Your task to perform on an android device: change the upload size in google photos Image 0: 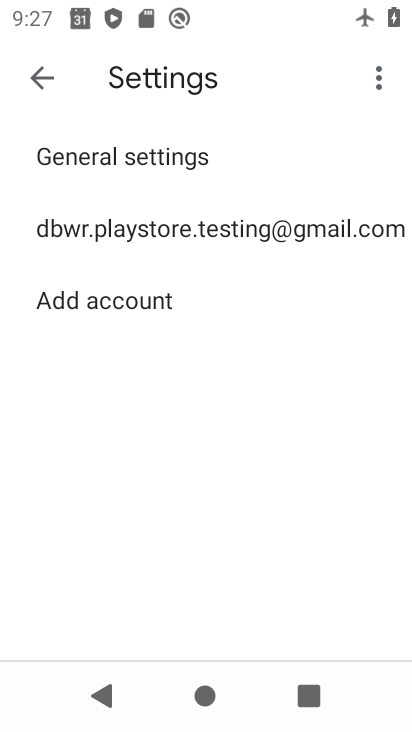
Step 0: click (263, 358)
Your task to perform on an android device: change the upload size in google photos Image 1: 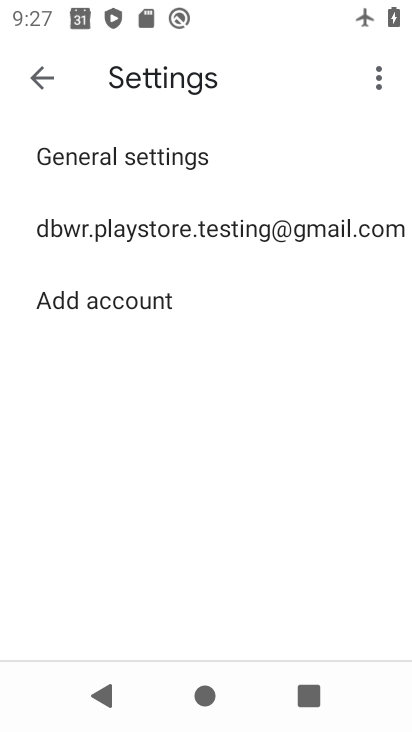
Step 1: press home button
Your task to perform on an android device: change the upload size in google photos Image 2: 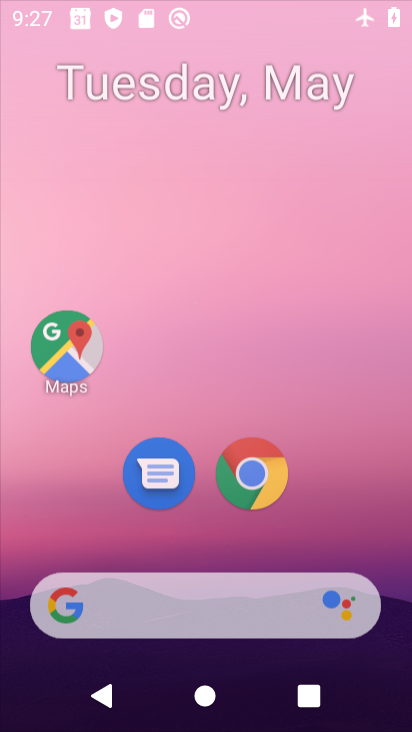
Step 2: drag from (260, 536) to (338, 10)
Your task to perform on an android device: change the upload size in google photos Image 3: 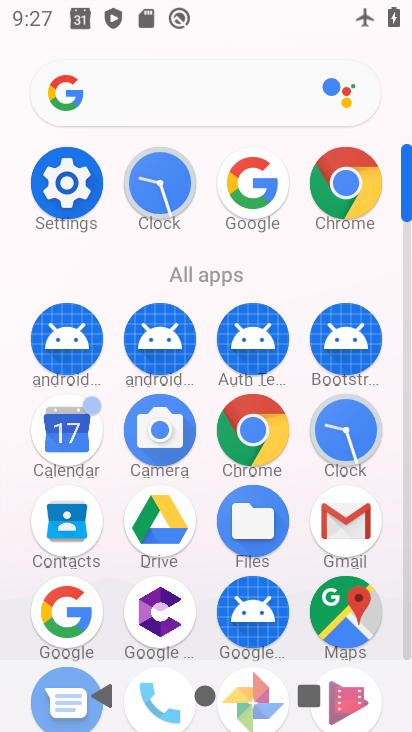
Step 3: drag from (208, 651) to (233, 249)
Your task to perform on an android device: change the upload size in google photos Image 4: 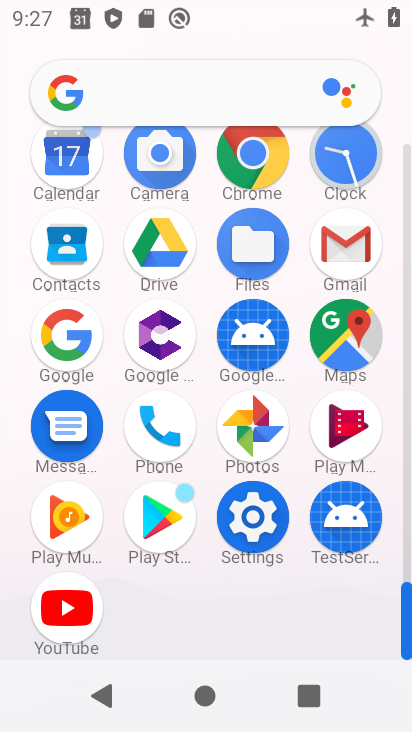
Step 4: click (257, 421)
Your task to perform on an android device: change the upload size in google photos Image 5: 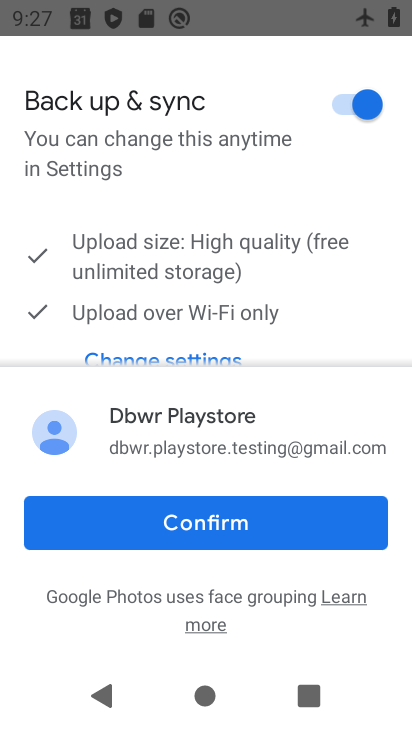
Step 5: click (258, 521)
Your task to perform on an android device: change the upload size in google photos Image 6: 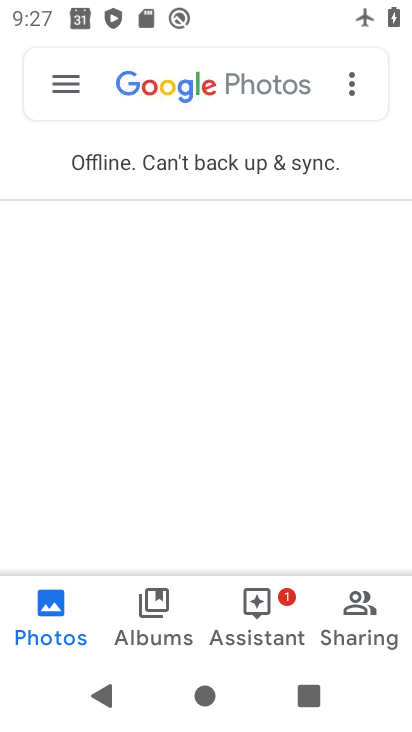
Step 6: click (352, 628)
Your task to perform on an android device: change the upload size in google photos Image 7: 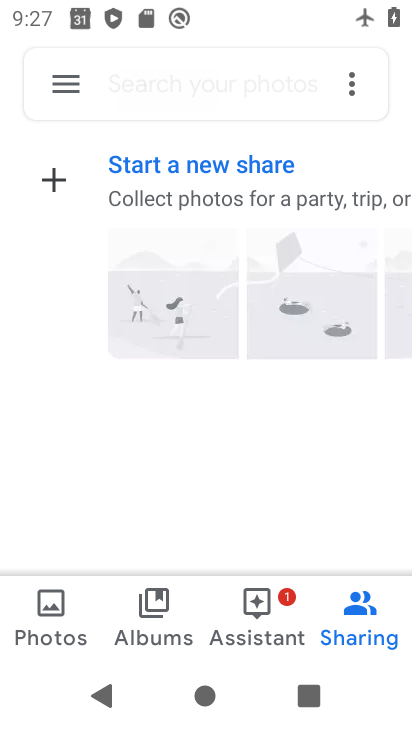
Step 7: click (76, 90)
Your task to perform on an android device: change the upload size in google photos Image 8: 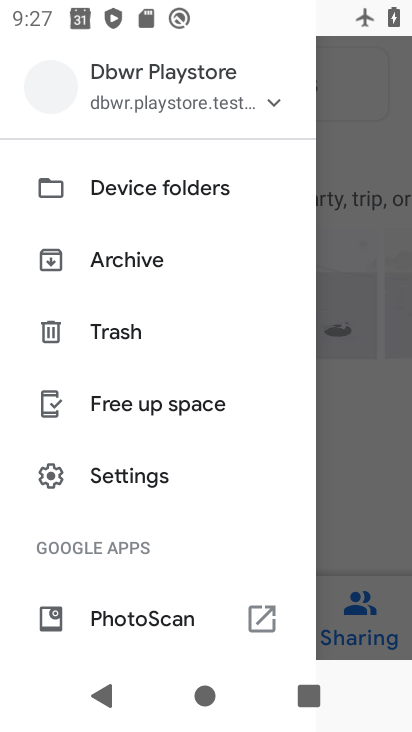
Step 8: click (213, 425)
Your task to perform on an android device: change the upload size in google photos Image 9: 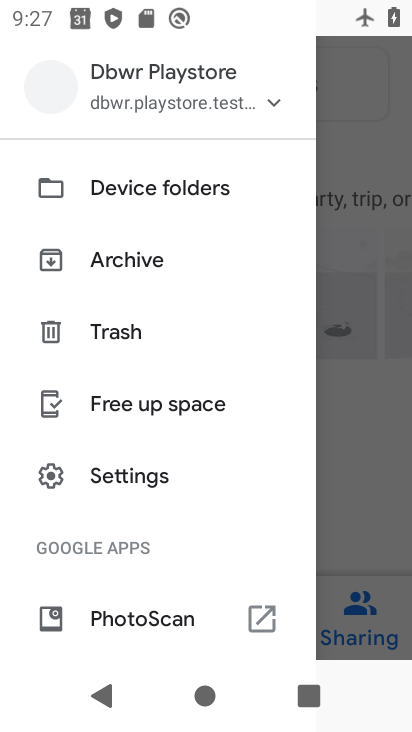
Step 9: drag from (195, 512) to (300, 66)
Your task to perform on an android device: change the upload size in google photos Image 10: 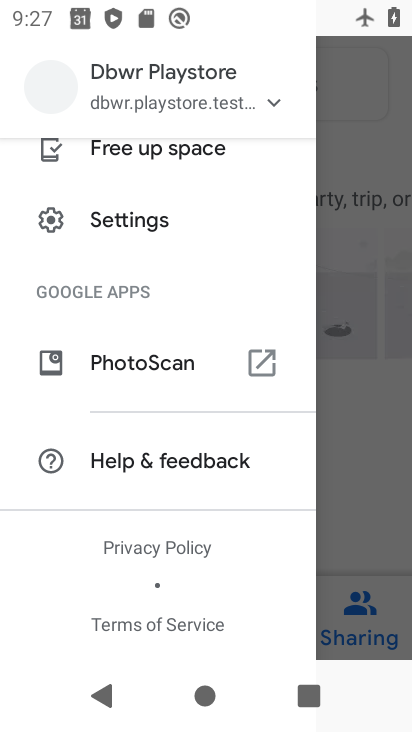
Step 10: click (114, 217)
Your task to perform on an android device: change the upload size in google photos Image 11: 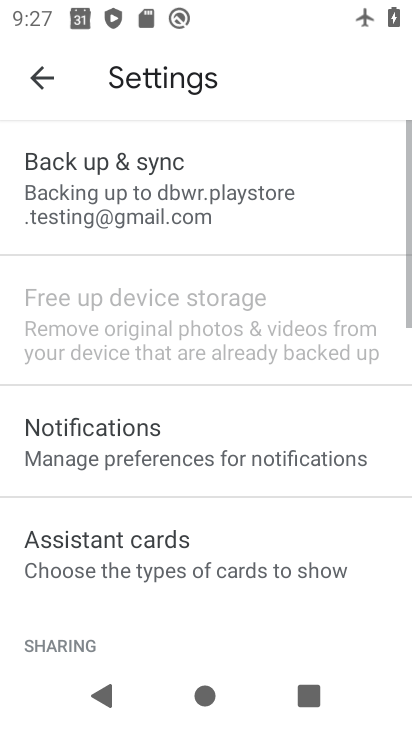
Step 11: click (199, 196)
Your task to perform on an android device: change the upload size in google photos Image 12: 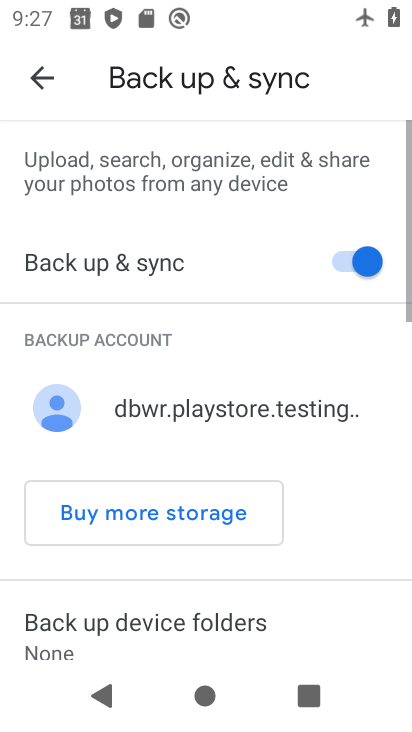
Step 12: drag from (249, 339) to (279, 177)
Your task to perform on an android device: change the upload size in google photos Image 13: 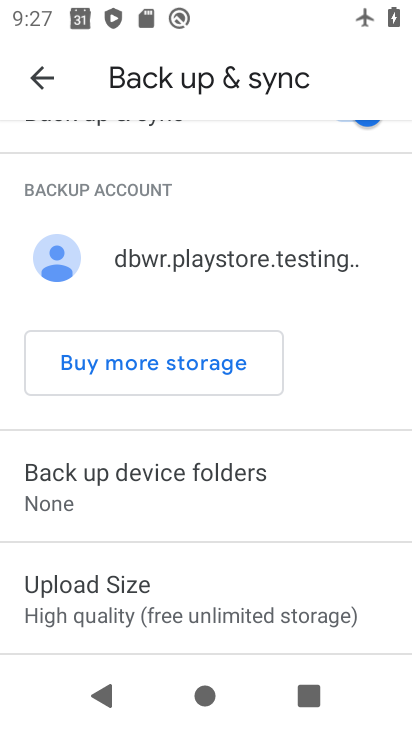
Step 13: drag from (245, 510) to (236, 278)
Your task to perform on an android device: change the upload size in google photos Image 14: 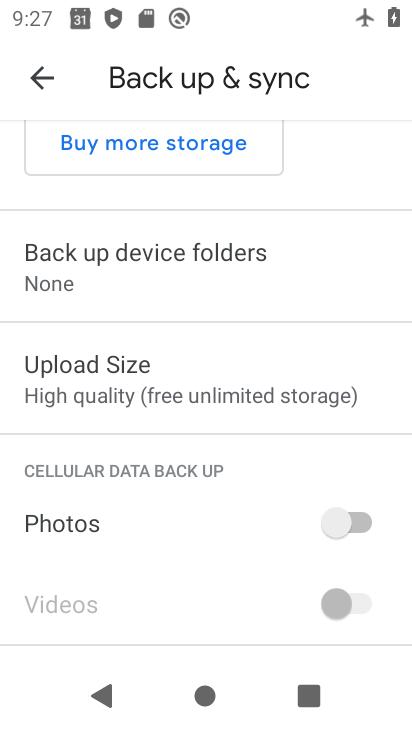
Step 14: click (210, 378)
Your task to perform on an android device: change the upload size in google photos Image 15: 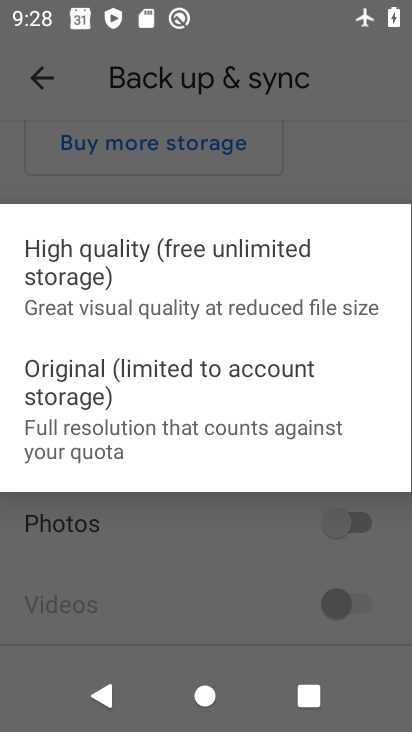
Step 15: click (133, 278)
Your task to perform on an android device: change the upload size in google photos Image 16: 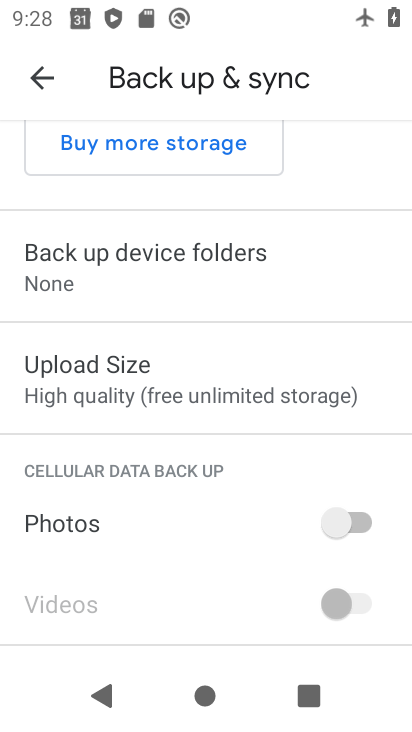
Step 16: task complete